Your task to perform on an android device: Open the web browser Image 0: 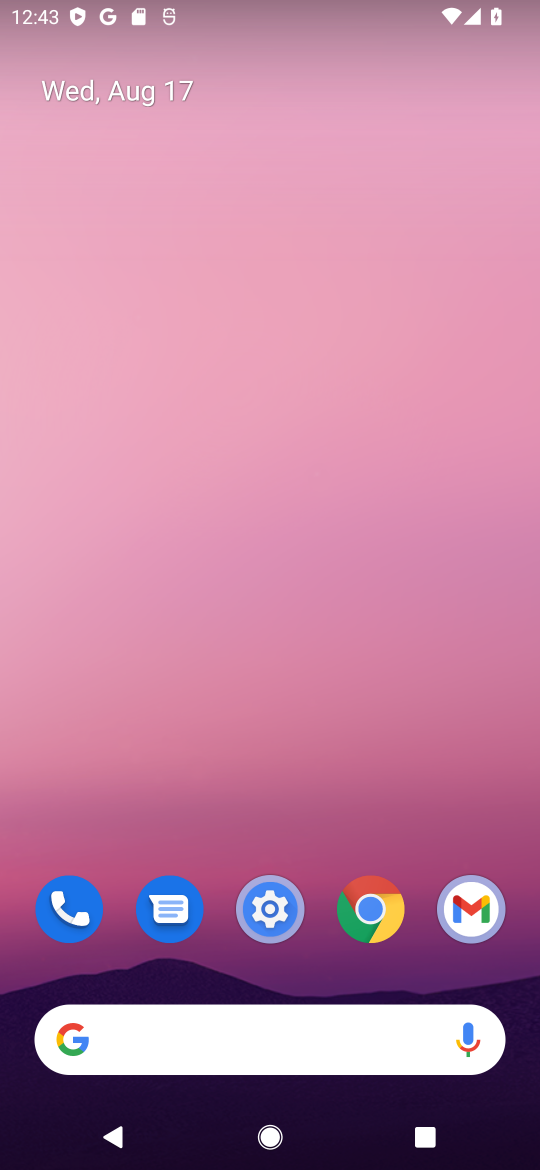
Step 0: click (365, 907)
Your task to perform on an android device: Open the web browser Image 1: 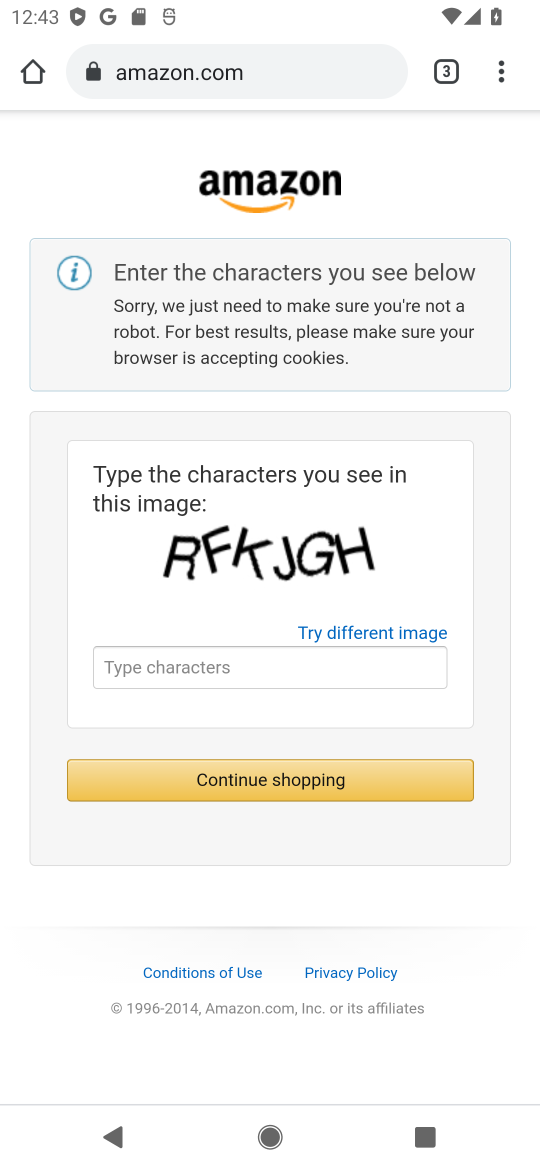
Step 1: task complete